Your task to perform on an android device: Go to battery settings Image 0: 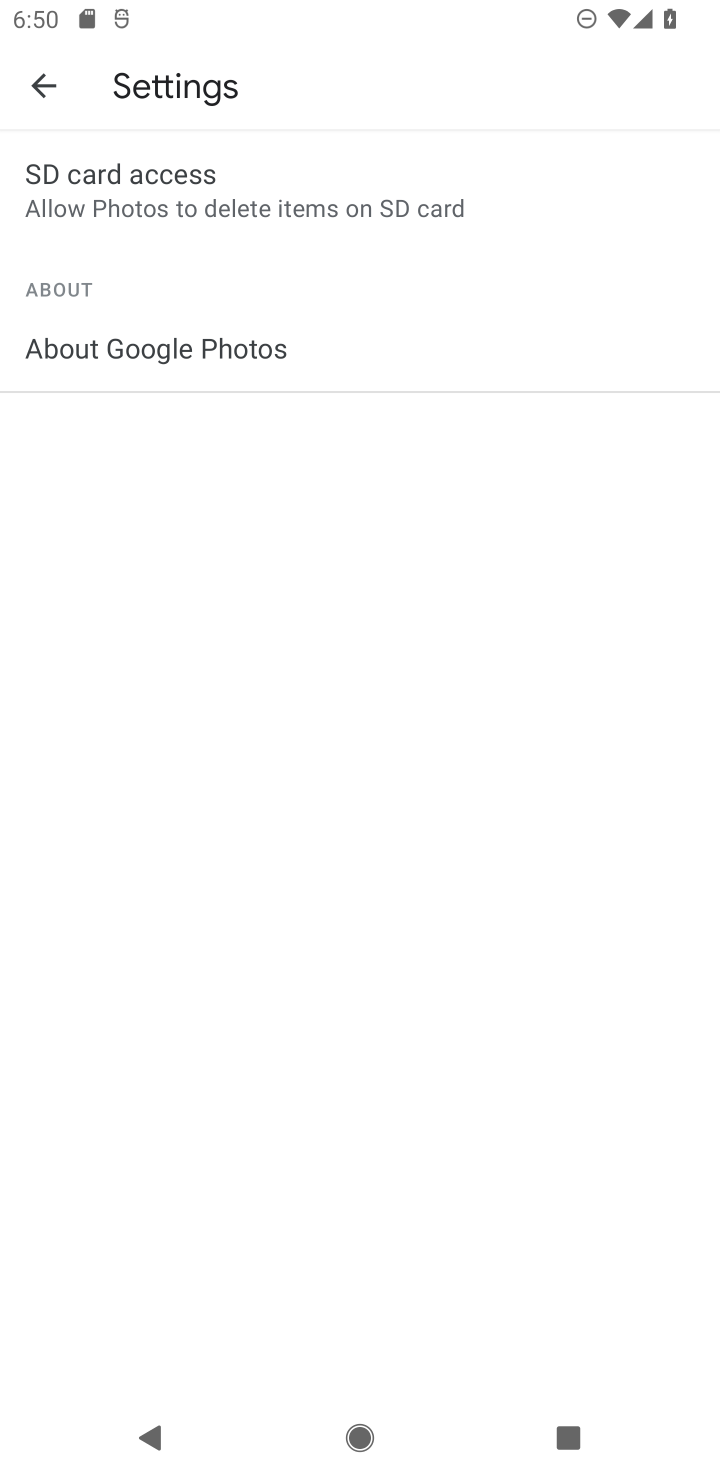
Step 0: press home button
Your task to perform on an android device: Go to battery settings Image 1: 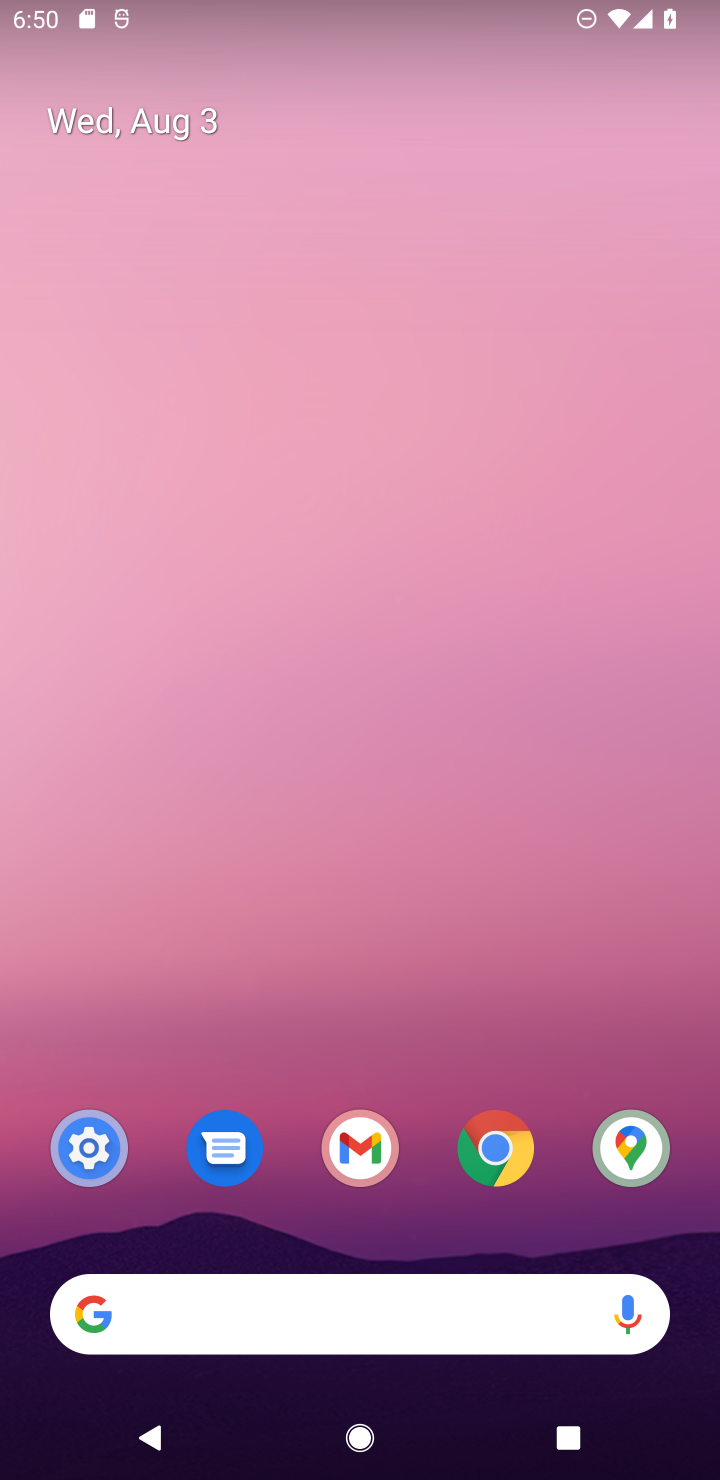
Step 1: click (86, 1150)
Your task to perform on an android device: Go to battery settings Image 2: 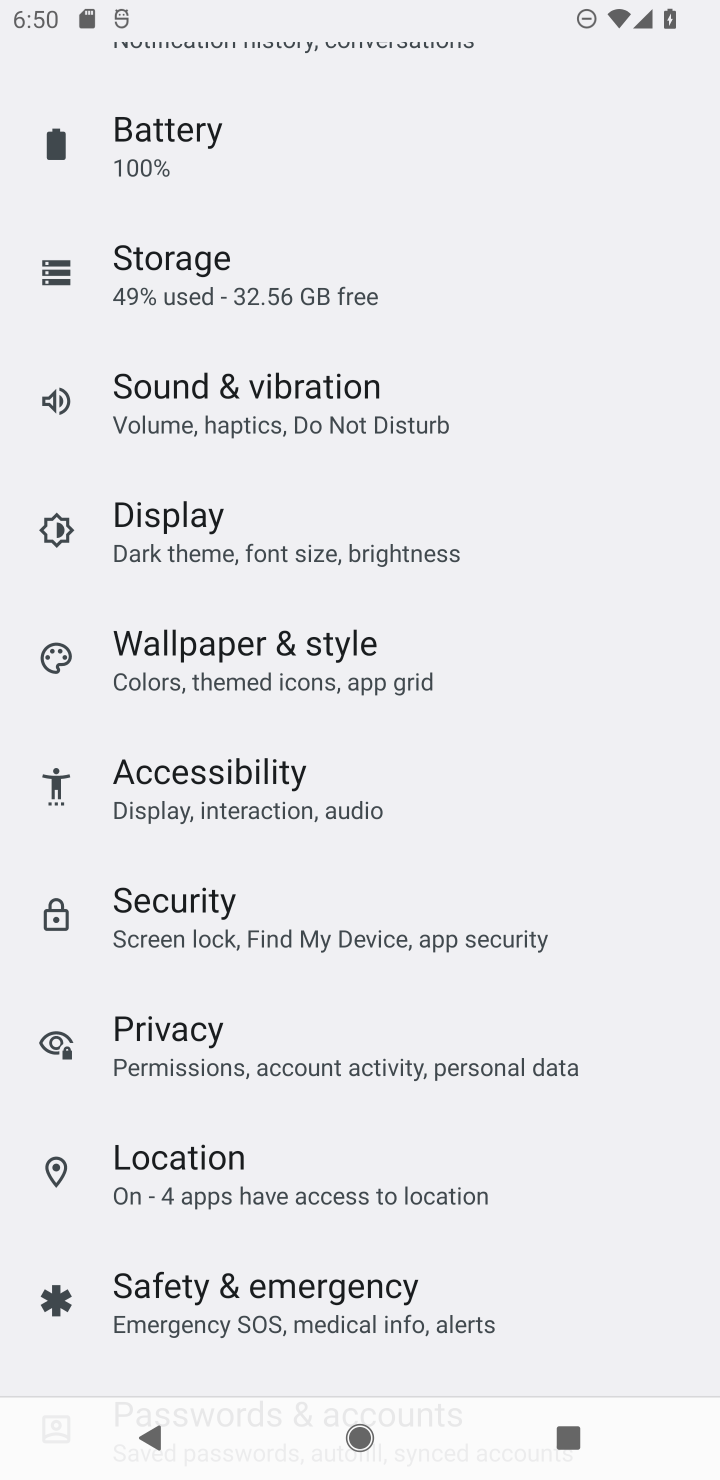
Step 2: click (154, 152)
Your task to perform on an android device: Go to battery settings Image 3: 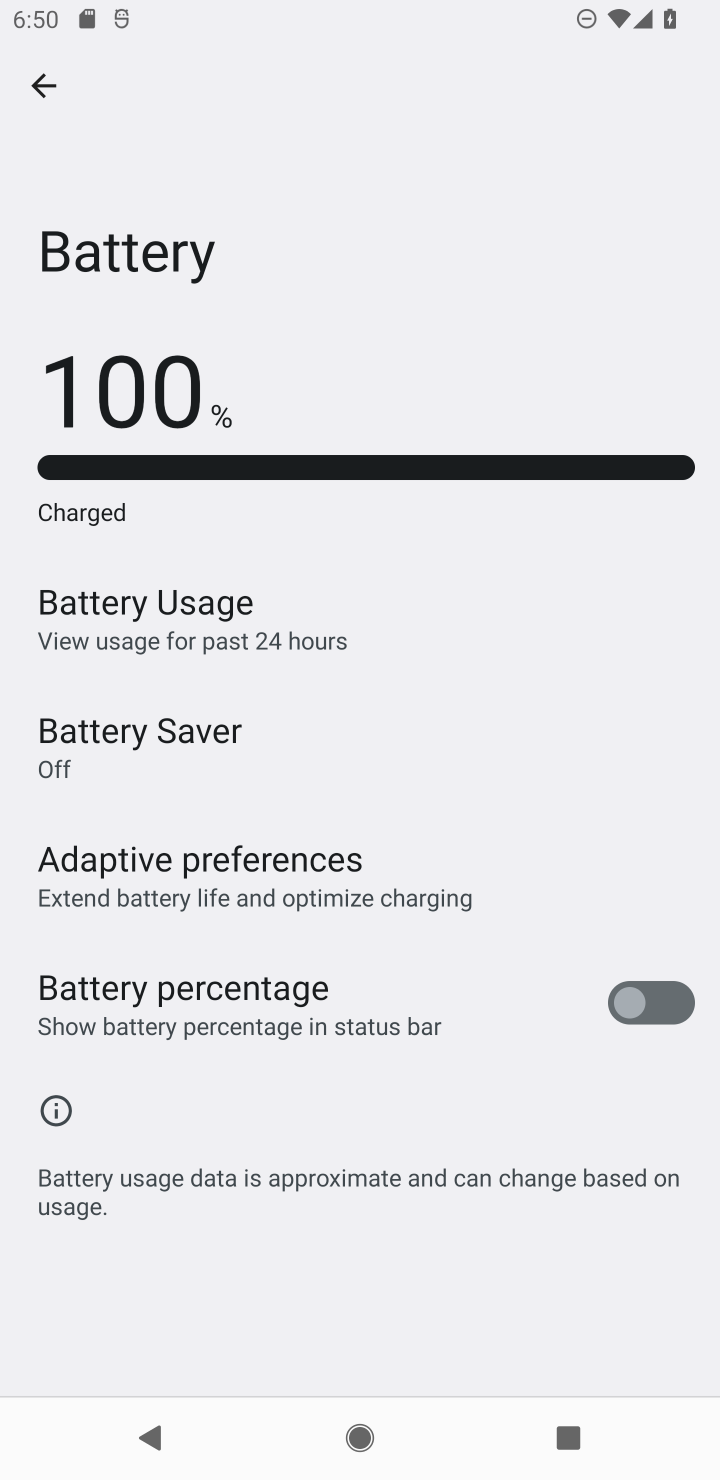
Step 3: task complete